Your task to perform on an android device: choose inbox layout in the gmail app Image 0: 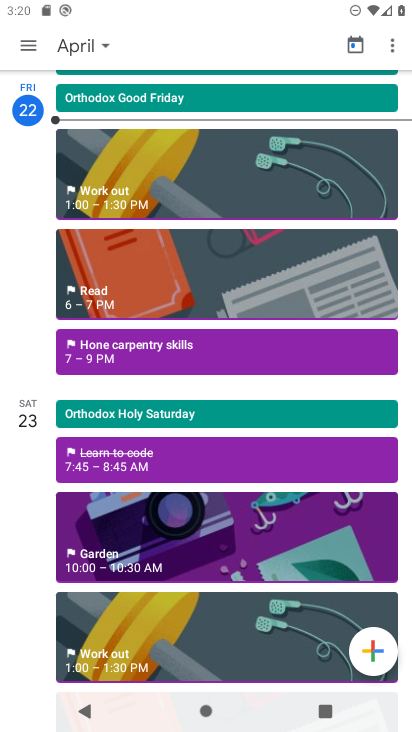
Step 0: press home button
Your task to perform on an android device: choose inbox layout in the gmail app Image 1: 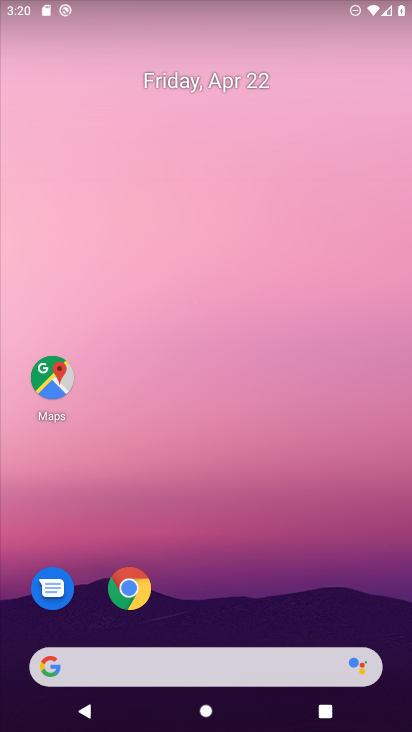
Step 1: drag from (186, 584) to (242, 156)
Your task to perform on an android device: choose inbox layout in the gmail app Image 2: 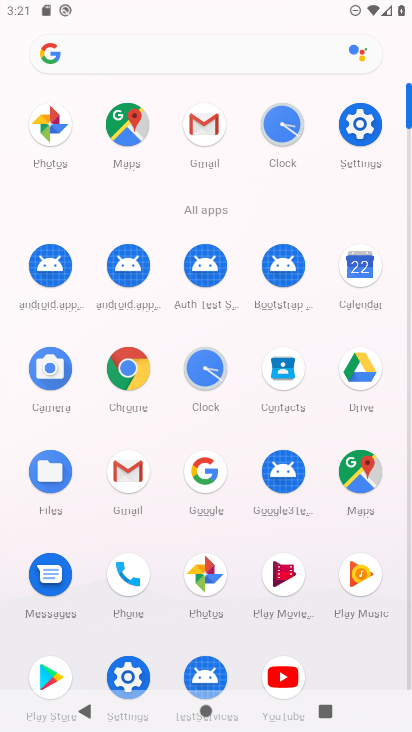
Step 2: click (127, 469)
Your task to perform on an android device: choose inbox layout in the gmail app Image 3: 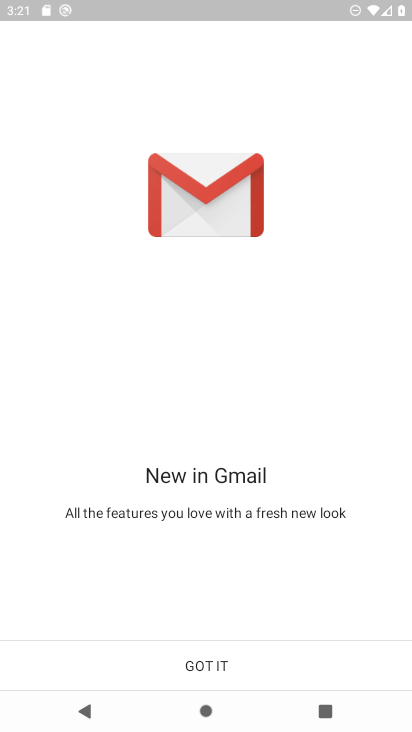
Step 3: click (201, 666)
Your task to perform on an android device: choose inbox layout in the gmail app Image 4: 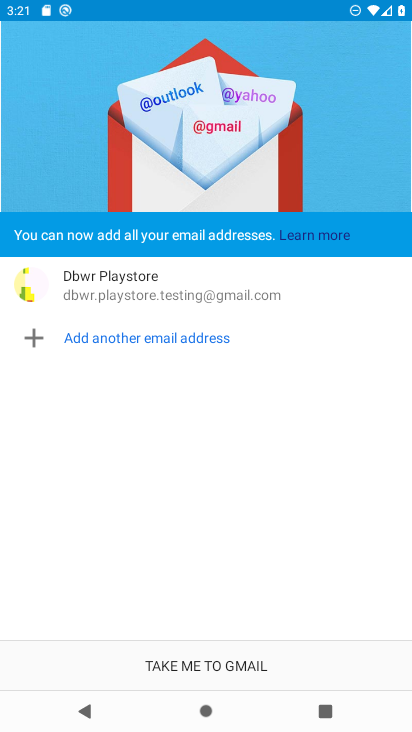
Step 4: click (201, 666)
Your task to perform on an android device: choose inbox layout in the gmail app Image 5: 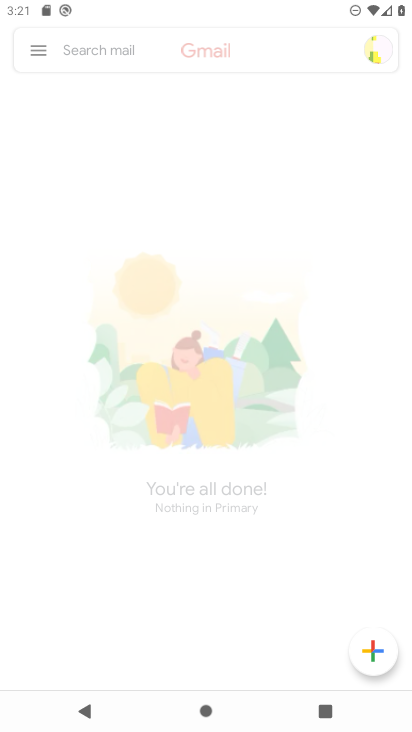
Step 5: click (37, 52)
Your task to perform on an android device: choose inbox layout in the gmail app Image 6: 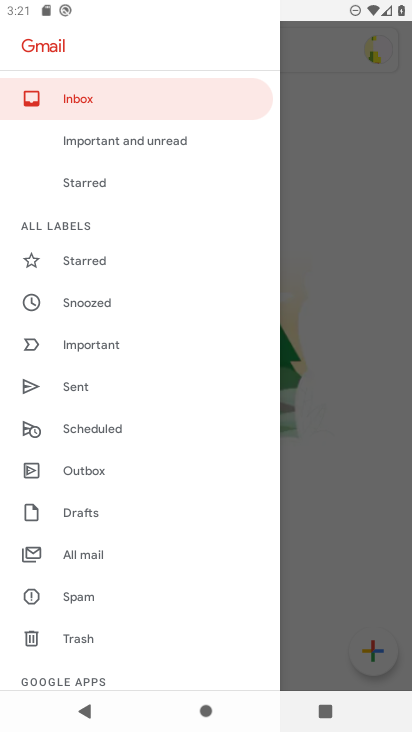
Step 6: drag from (130, 592) to (153, 318)
Your task to perform on an android device: choose inbox layout in the gmail app Image 7: 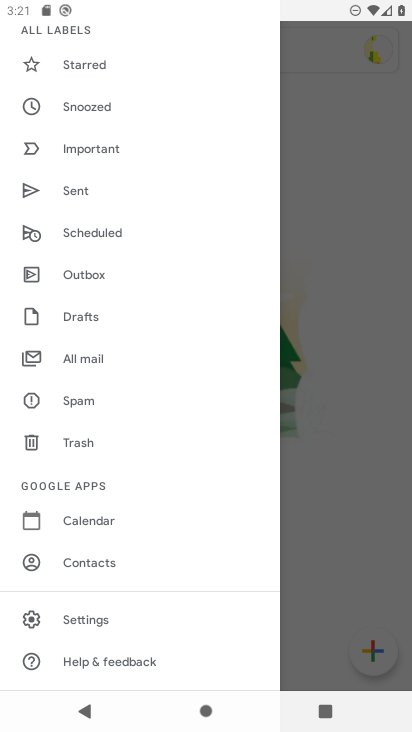
Step 7: click (90, 617)
Your task to perform on an android device: choose inbox layout in the gmail app Image 8: 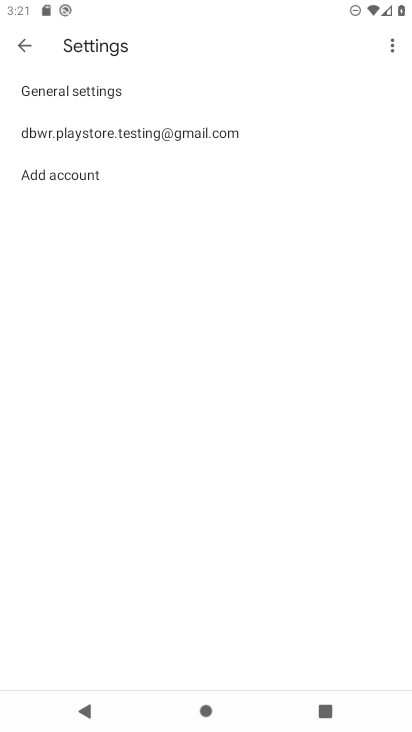
Step 8: click (125, 136)
Your task to perform on an android device: choose inbox layout in the gmail app Image 9: 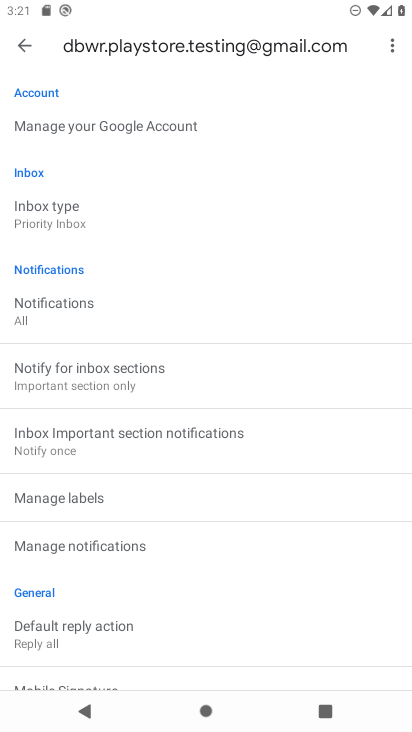
Step 9: click (70, 223)
Your task to perform on an android device: choose inbox layout in the gmail app Image 10: 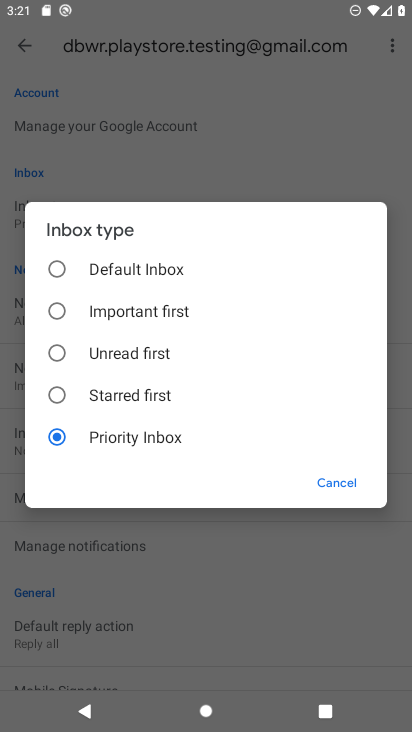
Step 10: click (59, 271)
Your task to perform on an android device: choose inbox layout in the gmail app Image 11: 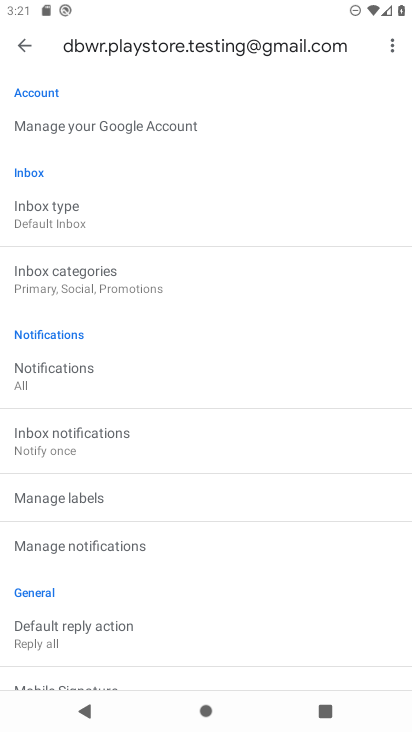
Step 11: task complete